Your task to perform on an android device: Search for pizza restaurants on Maps Image 0: 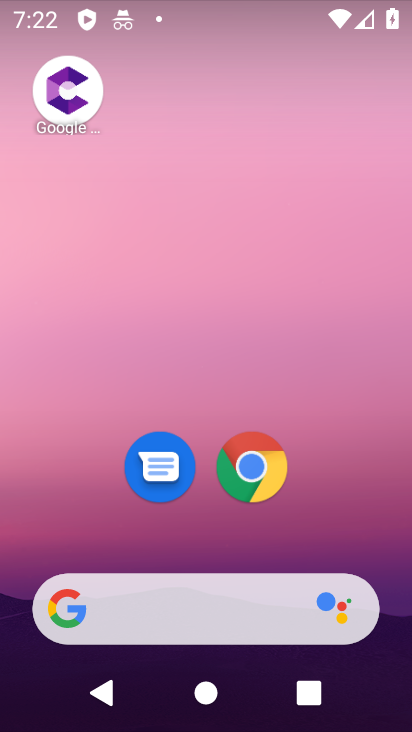
Step 0: drag from (376, 421) to (379, 124)
Your task to perform on an android device: Search for pizza restaurants on Maps Image 1: 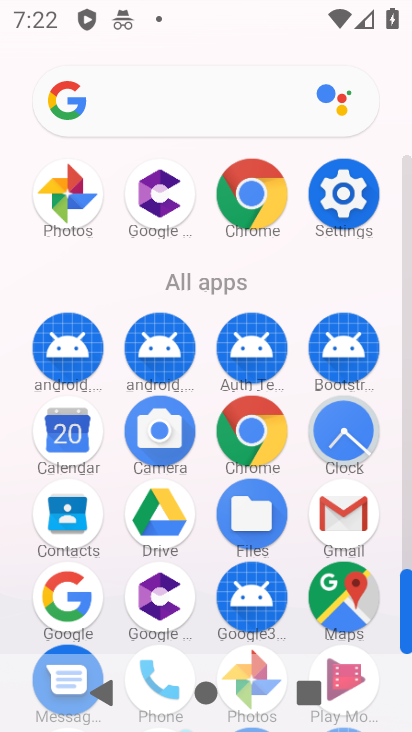
Step 1: click (322, 586)
Your task to perform on an android device: Search for pizza restaurants on Maps Image 2: 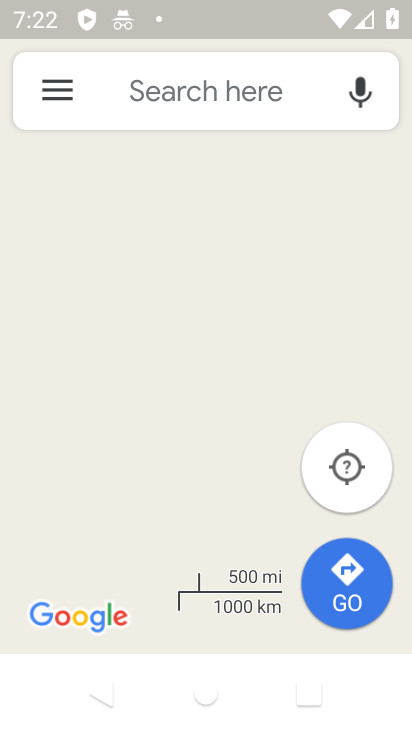
Step 2: click (177, 103)
Your task to perform on an android device: Search for pizza restaurants on Maps Image 3: 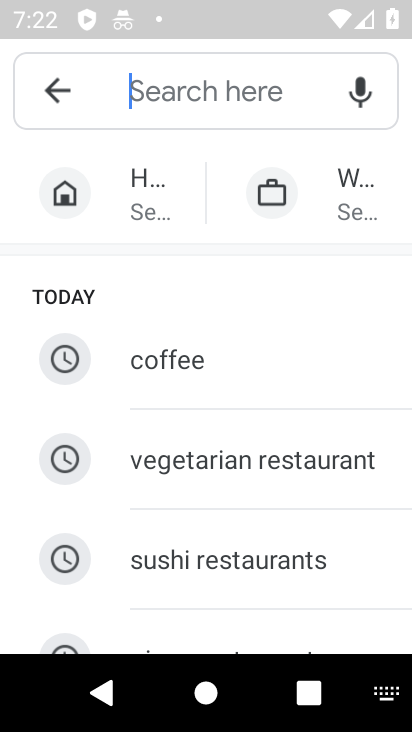
Step 3: type "pizza restaurants "
Your task to perform on an android device: Search for pizza restaurants on Maps Image 4: 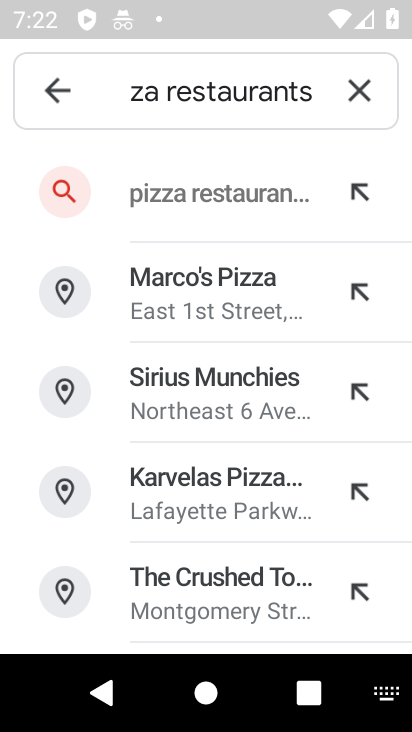
Step 4: click (182, 197)
Your task to perform on an android device: Search for pizza restaurants on Maps Image 5: 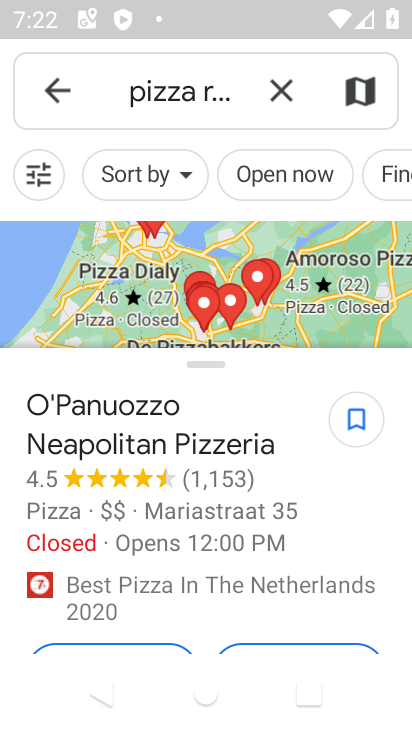
Step 5: task complete